Your task to perform on an android device: move an email to a new category in the gmail app Image 0: 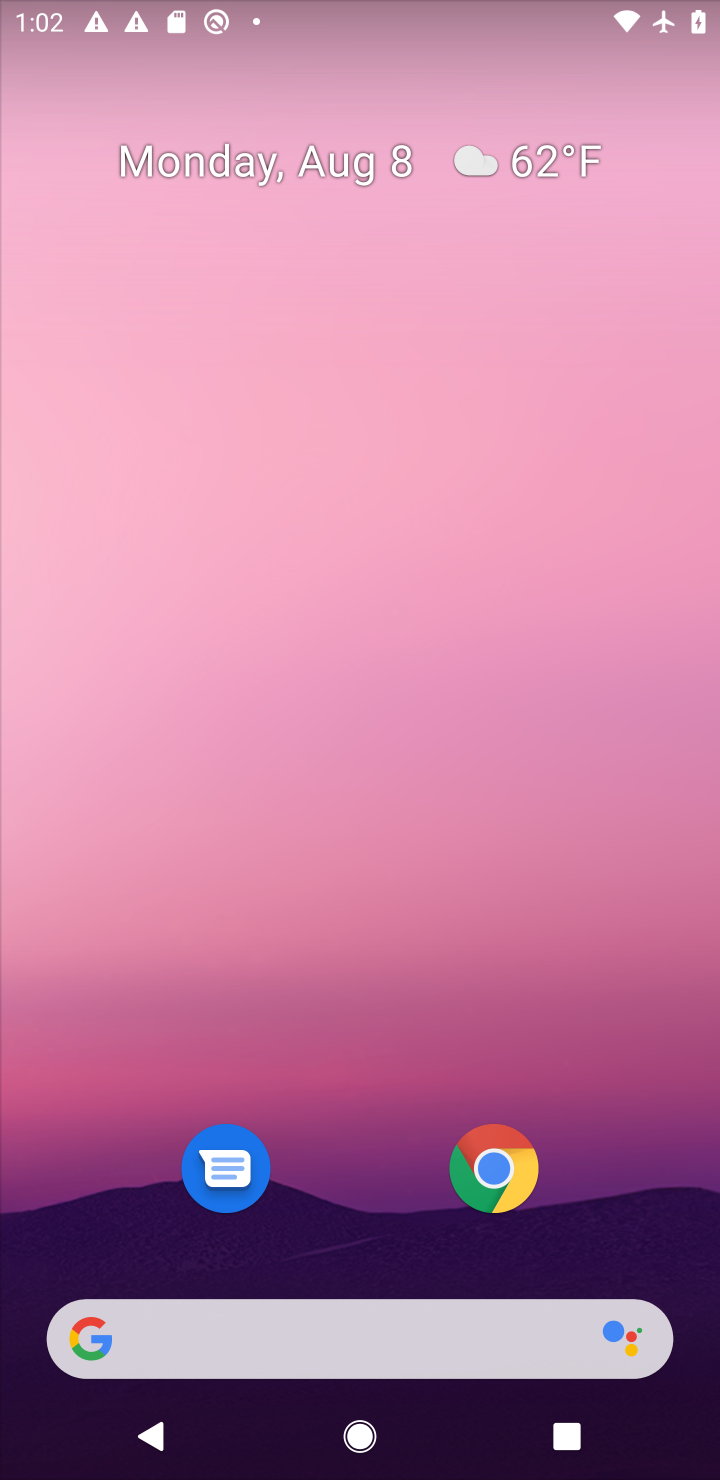
Step 0: drag from (403, 1263) to (366, 70)
Your task to perform on an android device: move an email to a new category in the gmail app Image 1: 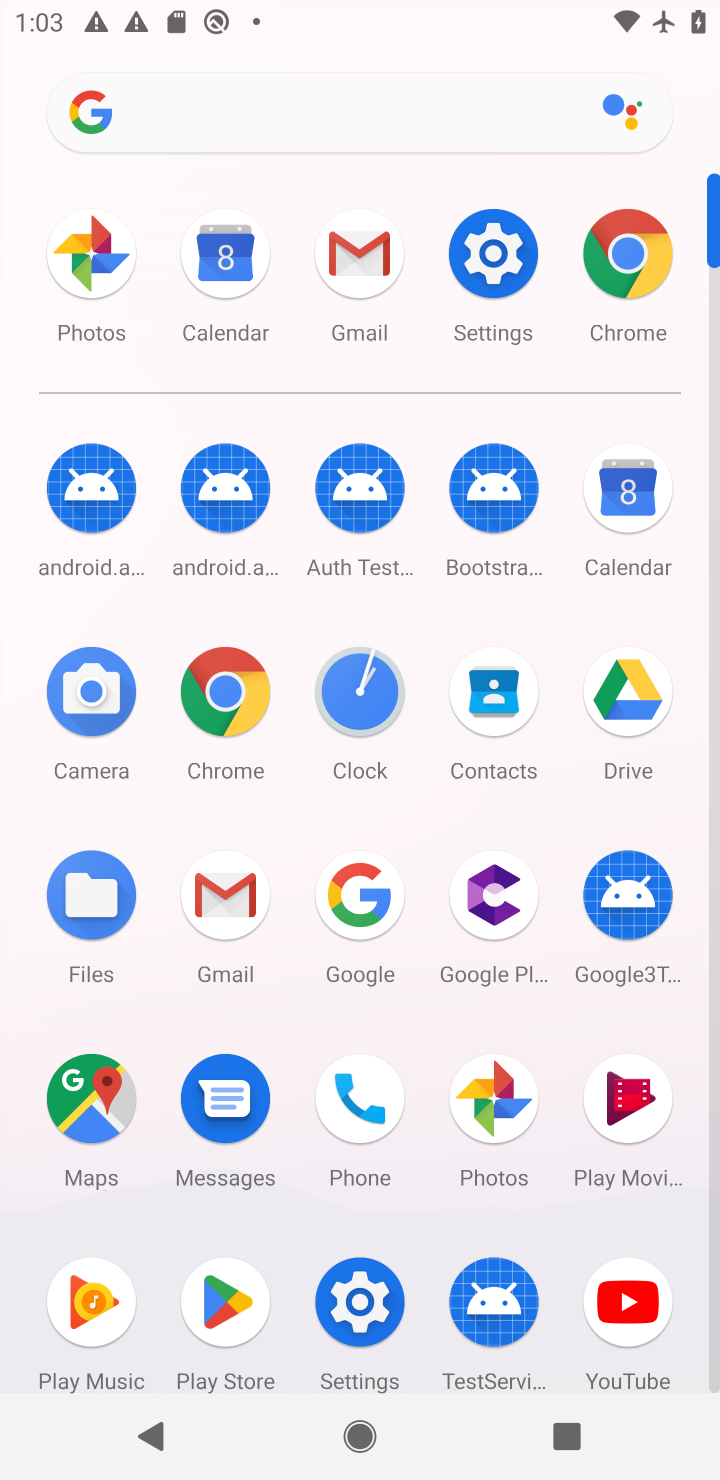
Step 1: click (221, 890)
Your task to perform on an android device: move an email to a new category in the gmail app Image 2: 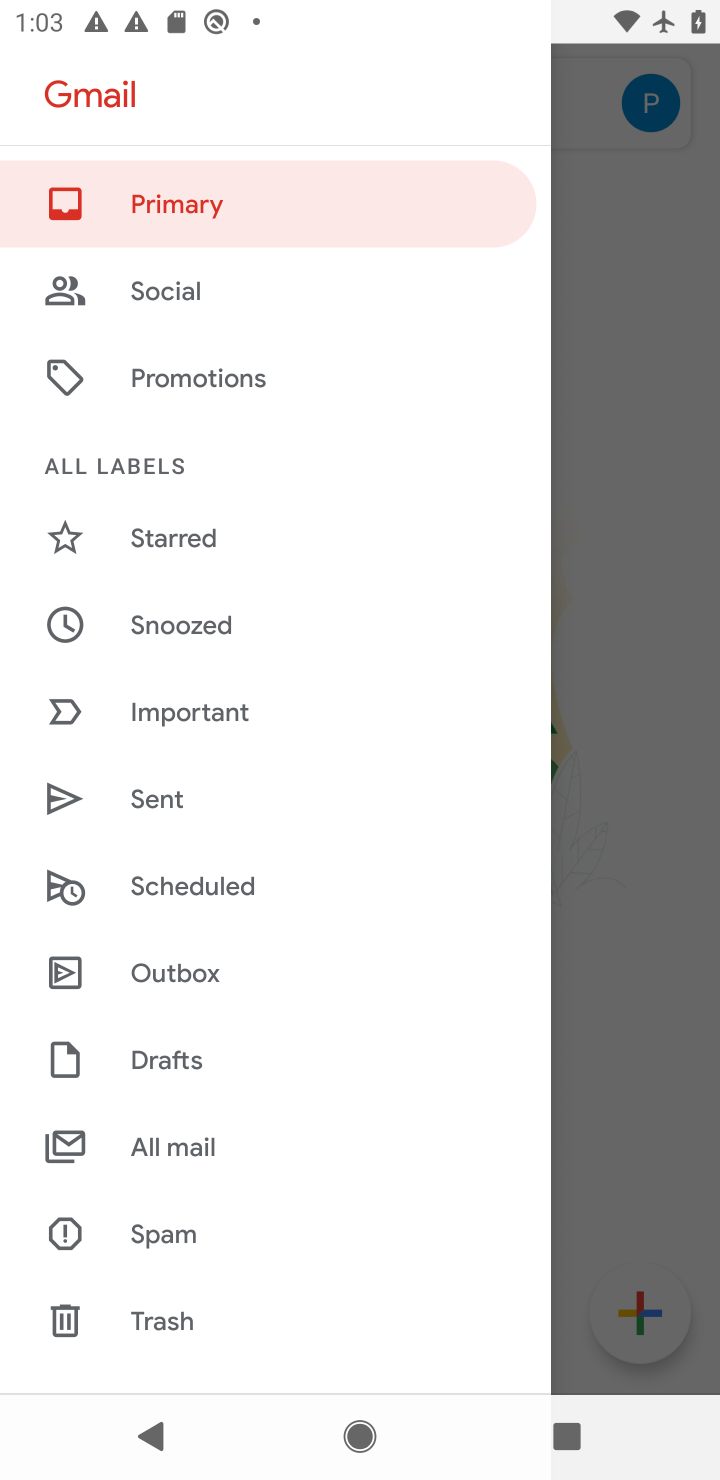
Step 2: click (222, 1141)
Your task to perform on an android device: move an email to a new category in the gmail app Image 3: 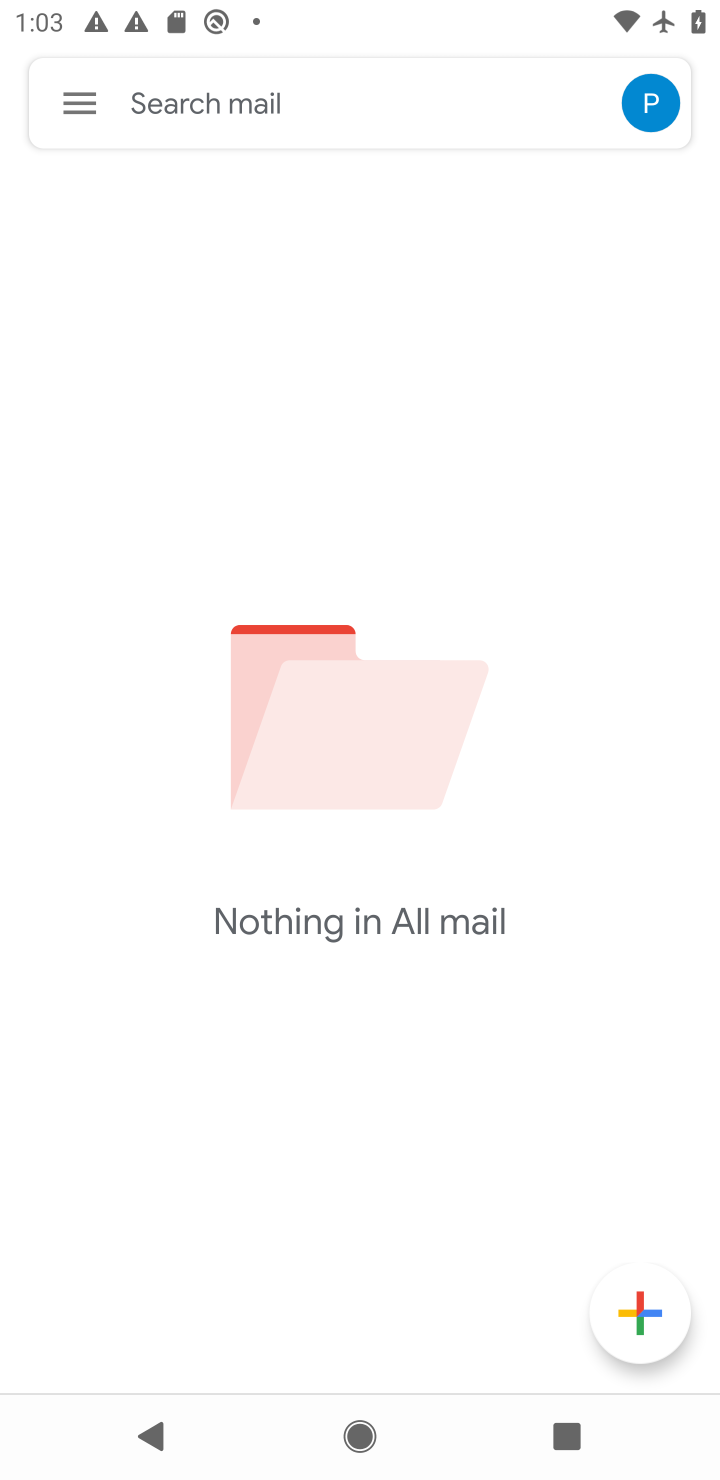
Step 3: task complete